Your task to perform on an android device: search for starred emails in the gmail app Image 0: 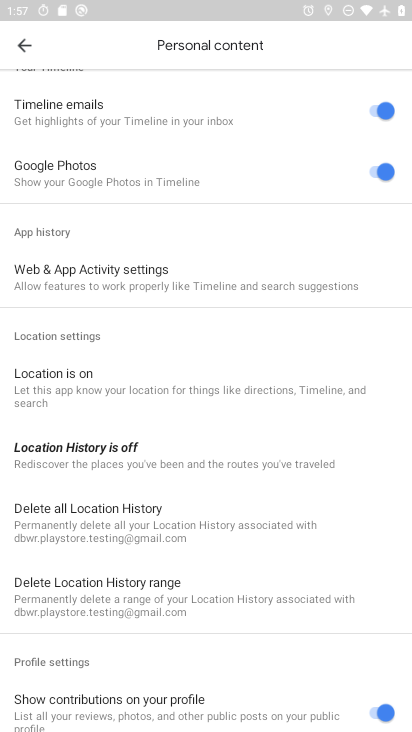
Step 0: press home button
Your task to perform on an android device: search for starred emails in the gmail app Image 1: 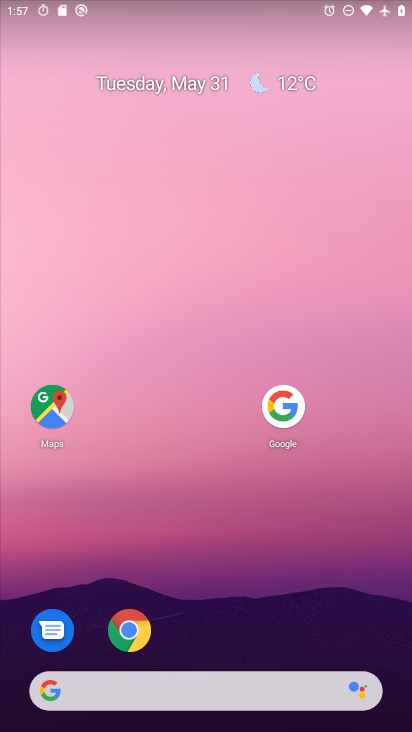
Step 1: drag from (155, 698) to (290, 223)
Your task to perform on an android device: search for starred emails in the gmail app Image 2: 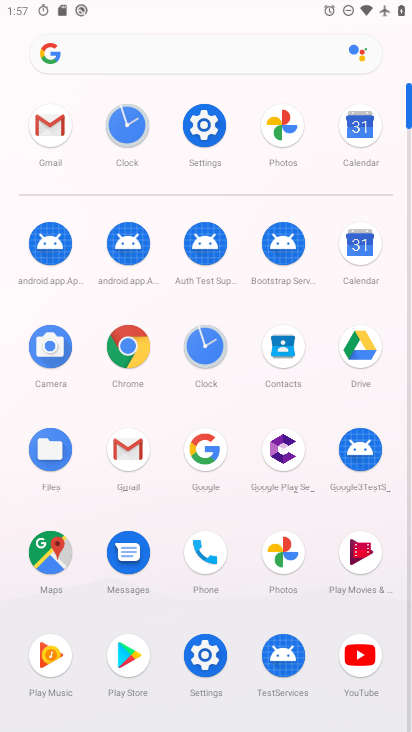
Step 2: click (49, 125)
Your task to perform on an android device: search for starred emails in the gmail app Image 3: 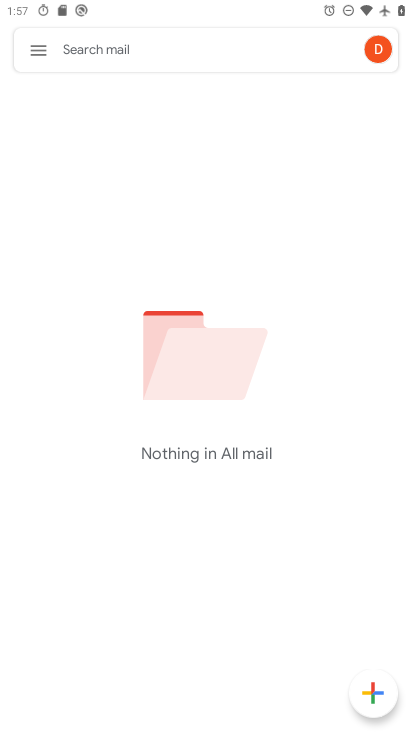
Step 3: click (38, 52)
Your task to perform on an android device: search for starred emails in the gmail app Image 4: 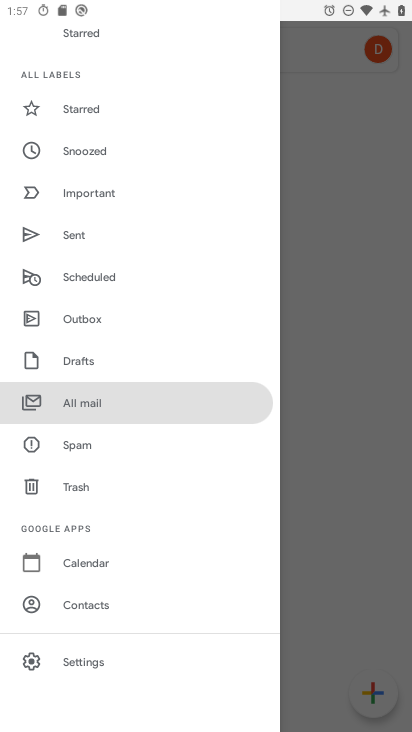
Step 4: click (89, 109)
Your task to perform on an android device: search for starred emails in the gmail app Image 5: 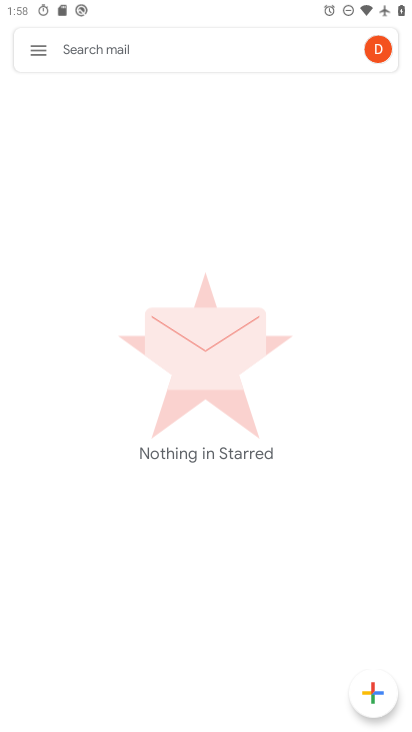
Step 5: task complete